Your task to perform on an android device: Open the stopwatch Image 0: 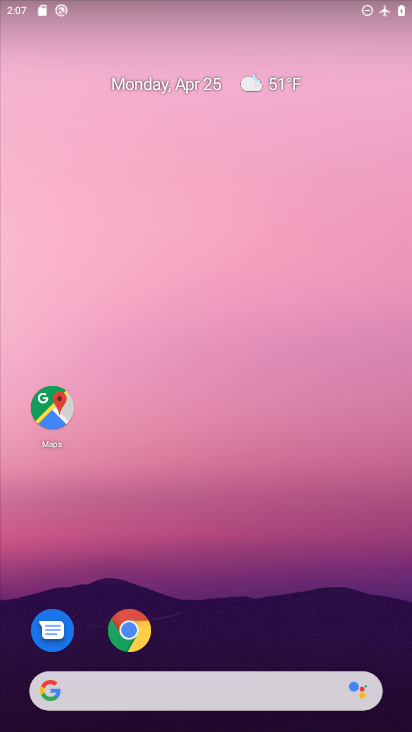
Step 0: drag from (306, 612) to (297, 61)
Your task to perform on an android device: Open the stopwatch Image 1: 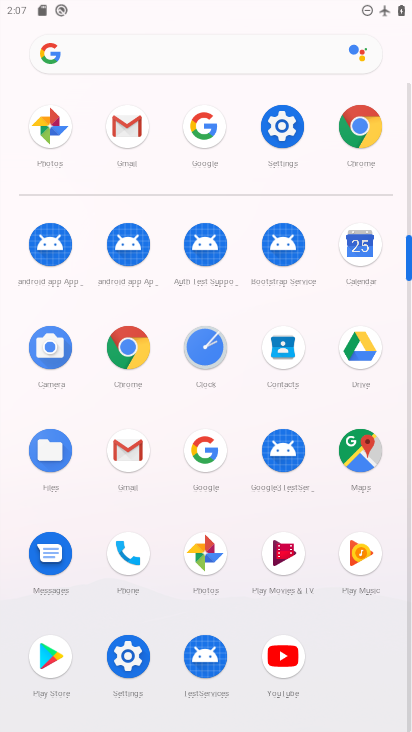
Step 1: click (202, 354)
Your task to perform on an android device: Open the stopwatch Image 2: 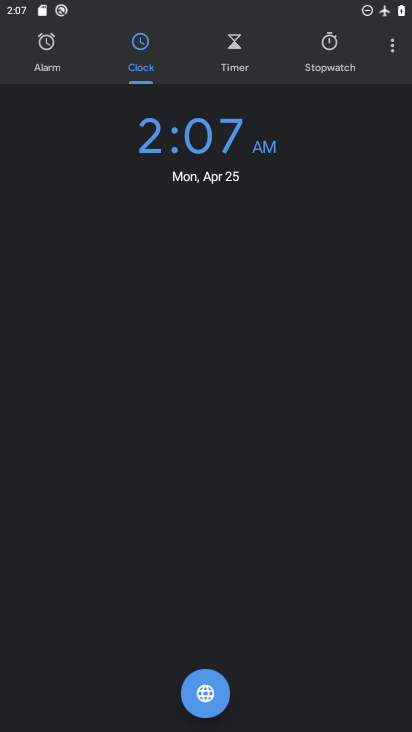
Step 2: click (318, 58)
Your task to perform on an android device: Open the stopwatch Image 3: 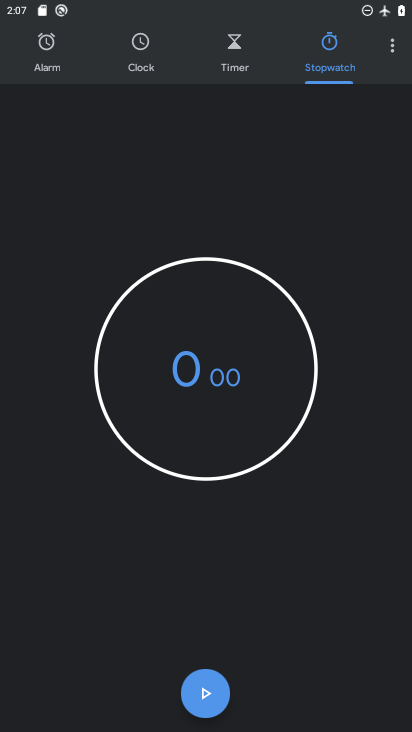
Step 3: click (205, 683)
Your task to perform on an android device: Open the stopwatch Image 4: 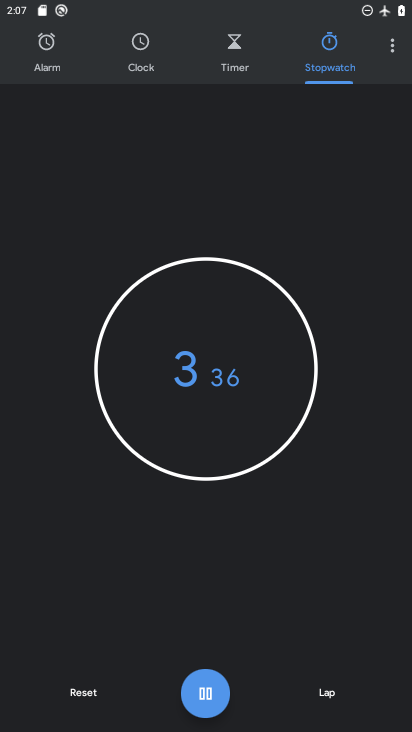
Step 4: task complete